Your task to perform on an android device: Go to Maps Image 0: 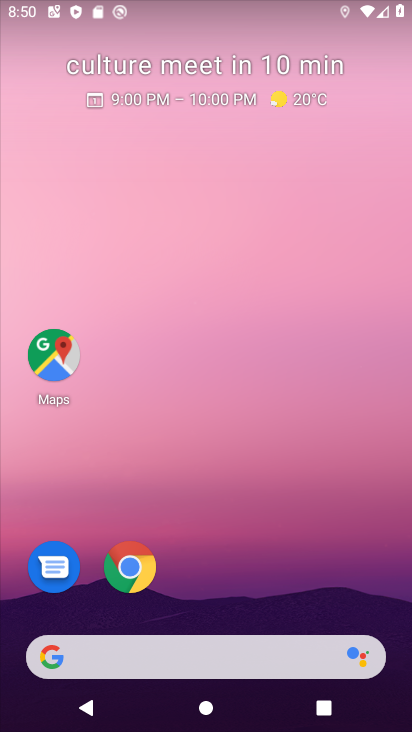
Step 0: click (47, 330)
Your task to perform on an android device: Go to Maps Image 1: 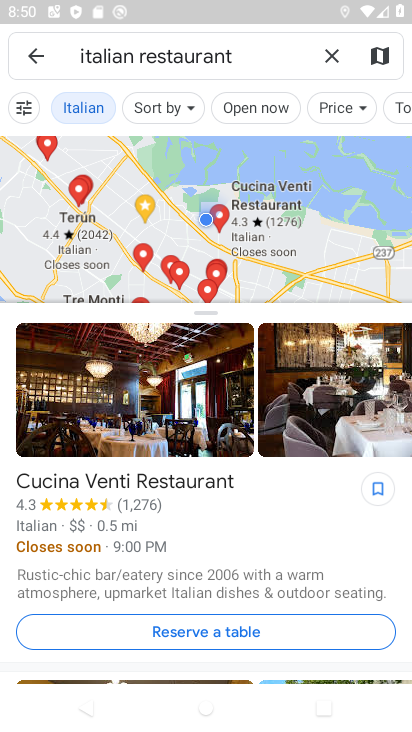
Step 1: task complete